Your task to perform on an android device: check data usage Image 0: 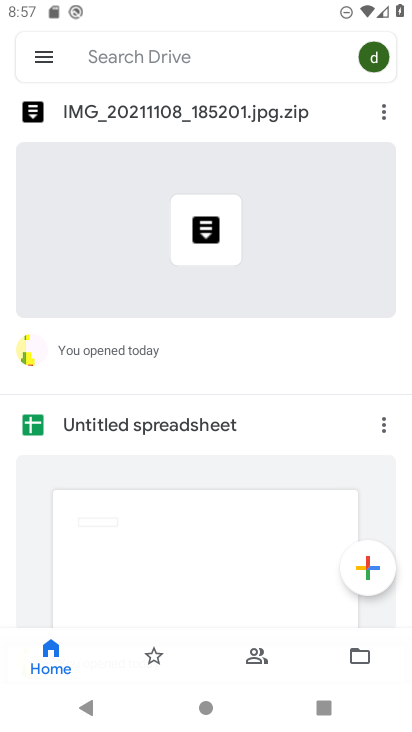
Step 0: press back button
Your task to perform on an android device: check data usage Image 1: 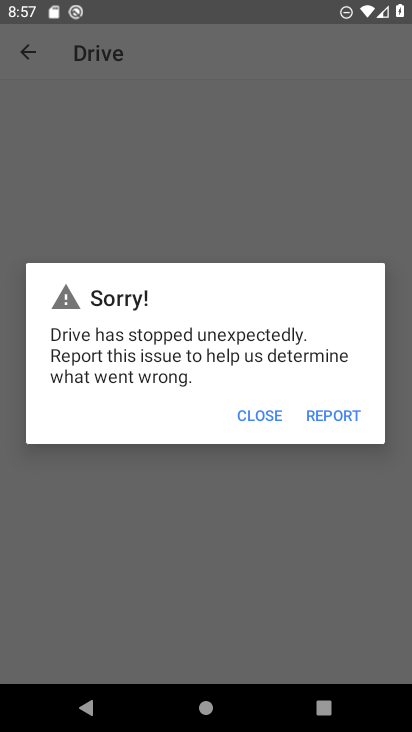
Step 1: press home button
Your task to perform on an android device: check data usage Image 2: 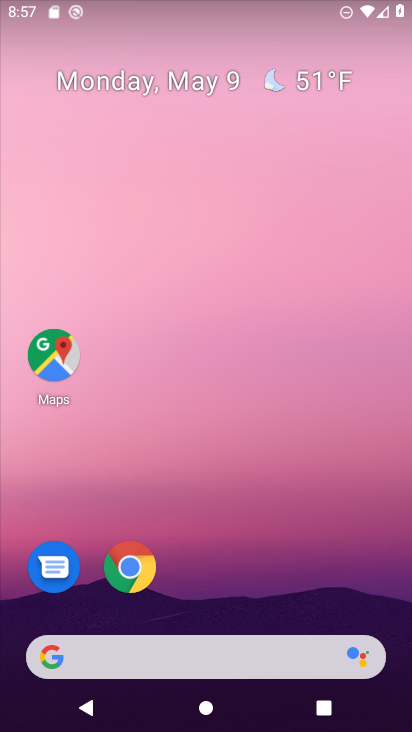
Step 2: drag from (192, 636) to (311, 85)
Your task to perform on an android device: check data usage Image 3: 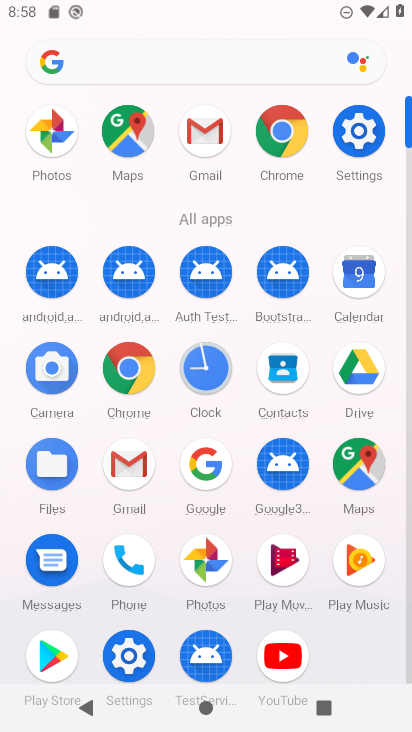
Step 3: click (129, 670)
Your task to perform on an android device: check data usage Image 4: 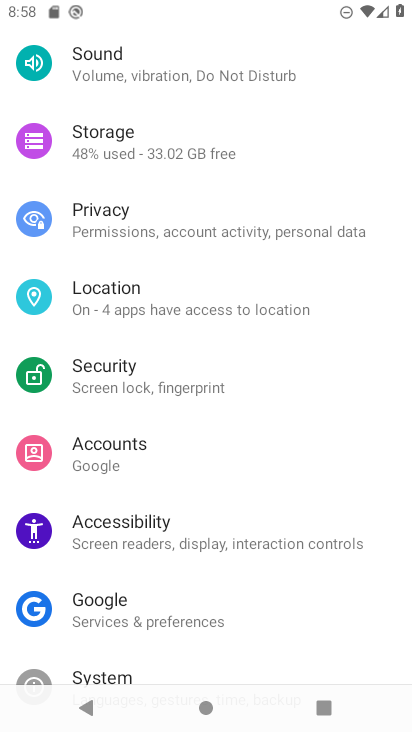
Step 4: drag from (277, 136) to (248, 589)
Your task to perform on an android device: check data usage Image 5: 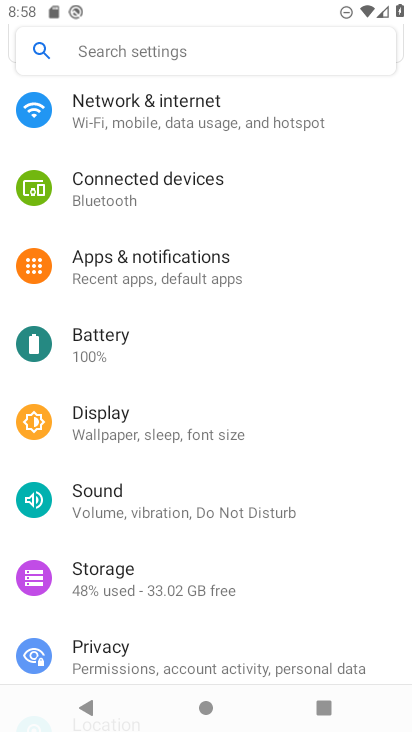
Step 5: click (242, 134)
Your task to perform on an android device: check data usage Image 6: 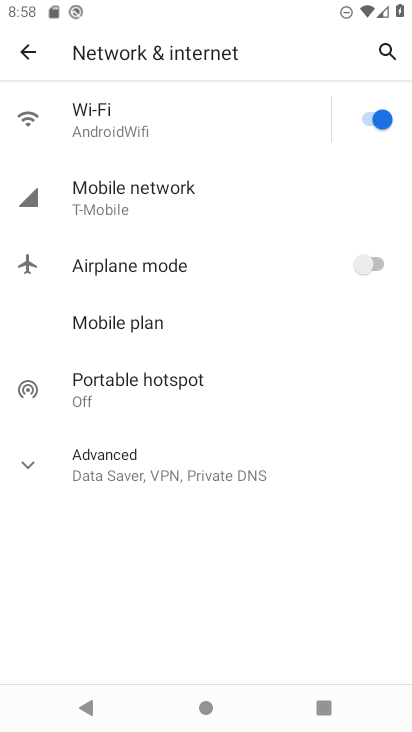
Step 6: click (219, 222)
Your task to perform on an android device: check data usage Image 7: 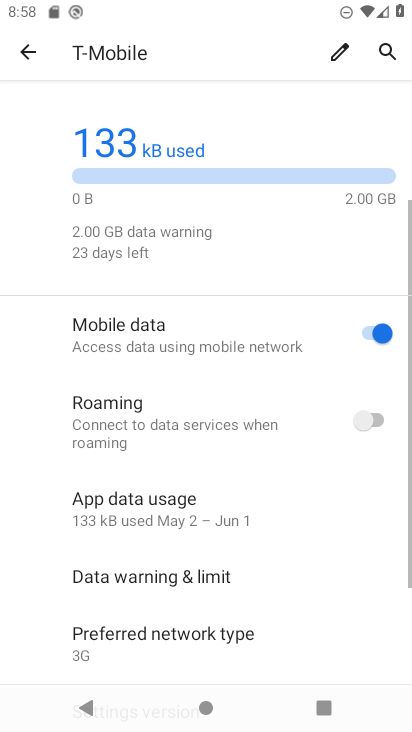
Step 7: click (234, 531)
Your task to perform on an android device: check data usage Image 8: 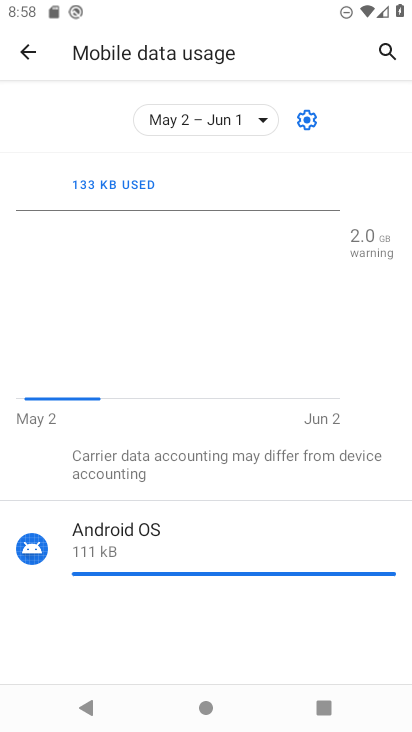
Step 8: task complete